Your task to perform on an android device: Open Google Image 0: 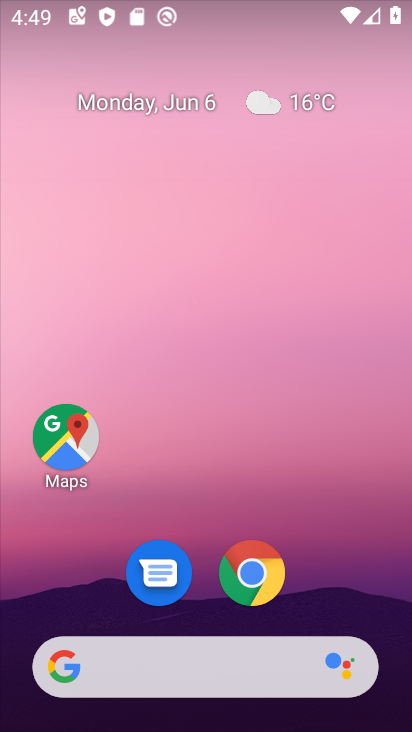
Step 0: drag from (338, 578) to (268, 74)
Your task to perform on an android device: Open Google Image 1: 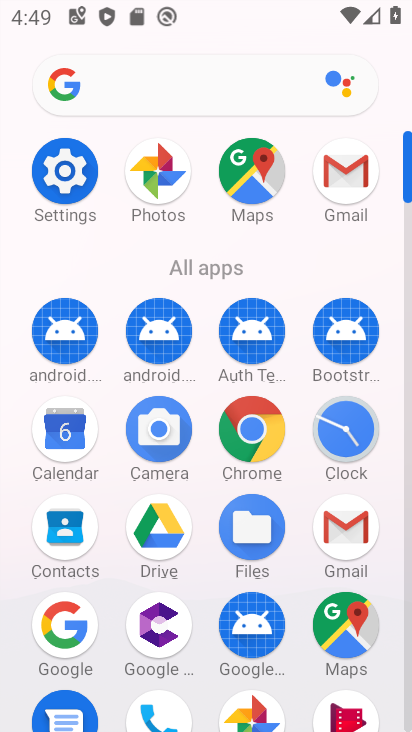
Step 1: click (60, 626)
Your task to perform on an android device: Open Google Image 2: 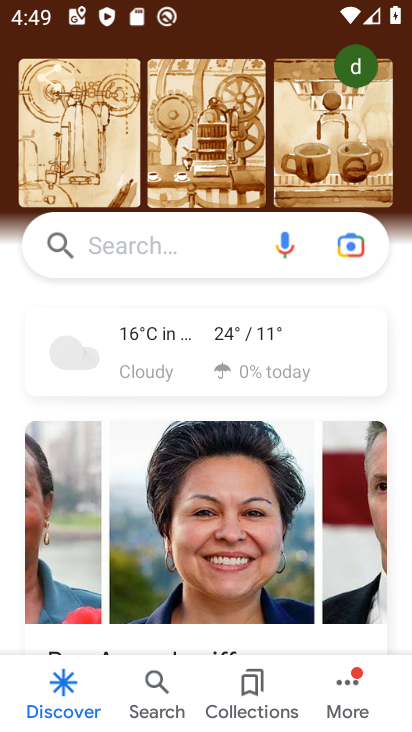
Step 2: task complete